Your task to perform on an android device: change the clock display to digital Image 0: 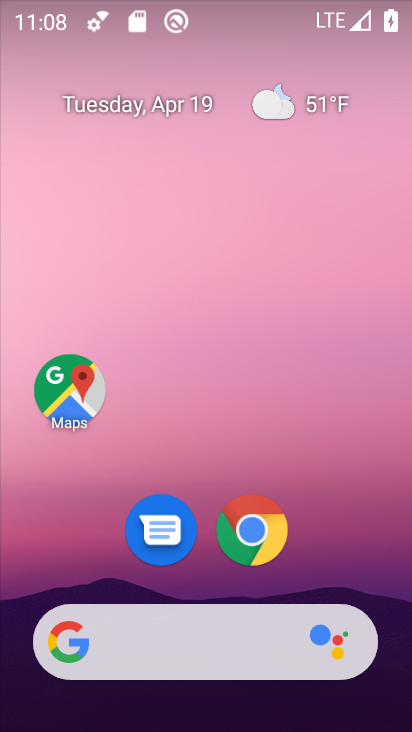
Step 0: drag from (144, 632) to (285, 60)
Your task to perform on an android device: change the clock display to digital Image 1: 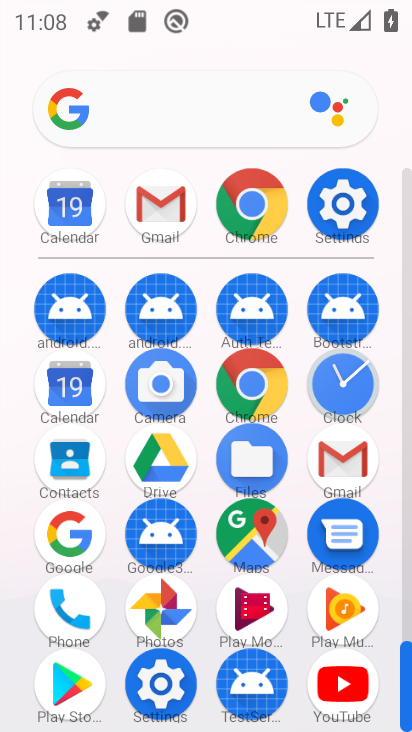
Step 1: click (348, 390)
Your task to perform on an android device: change the clock display to digital Image 2: 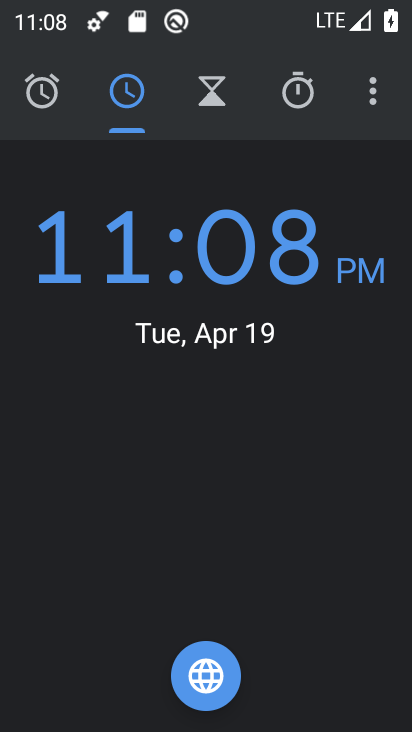
Step 2: click (370, 96)
Your task to perform on an android device: change the clock display to digital Image 3: 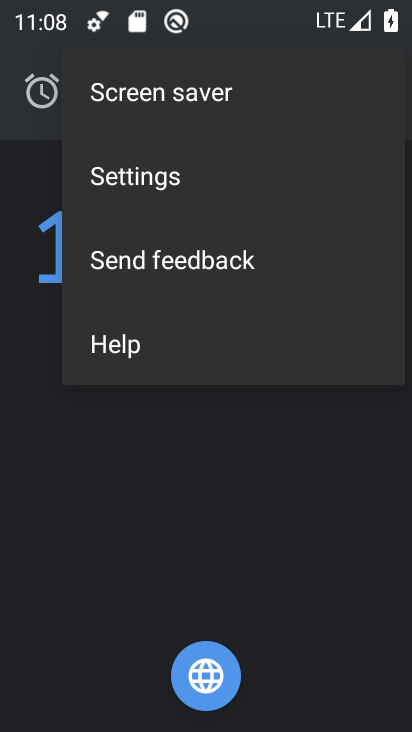
Step 3: click (156, 180)
Your task to perform on an android device: change the clock display to digital Image 4: 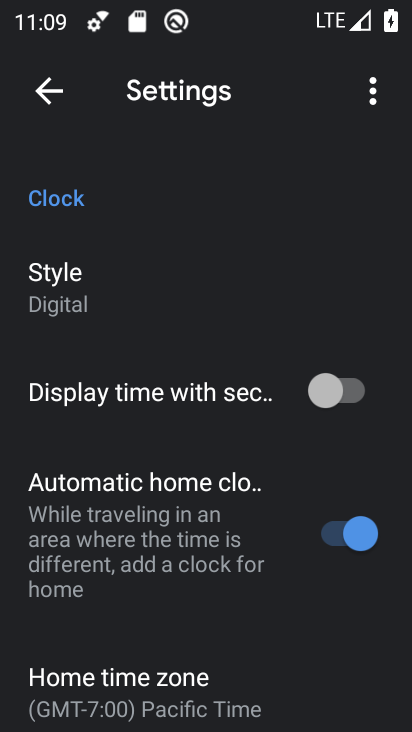
Step 4: task complete